Your task to perform on an android device: turn off translation in the chrome app Image 0: 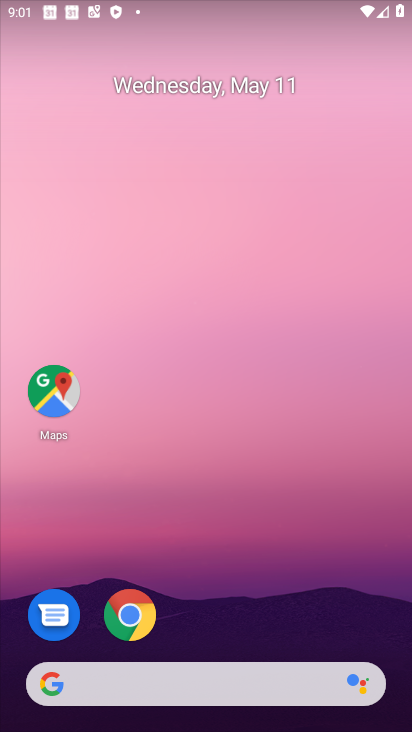
Step 0: press home button
Your task to perform on an android device: turn off translation in the chrome app Image 1: 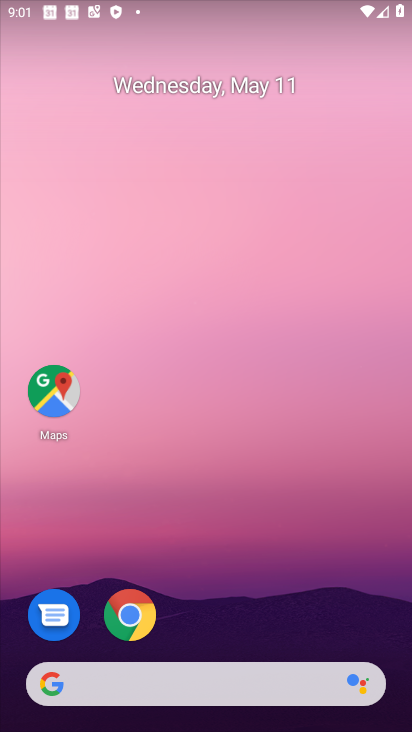
Step 1: click (126, 615)
Your task to perform on an android device: turn off translation in the chrome app Image 2: 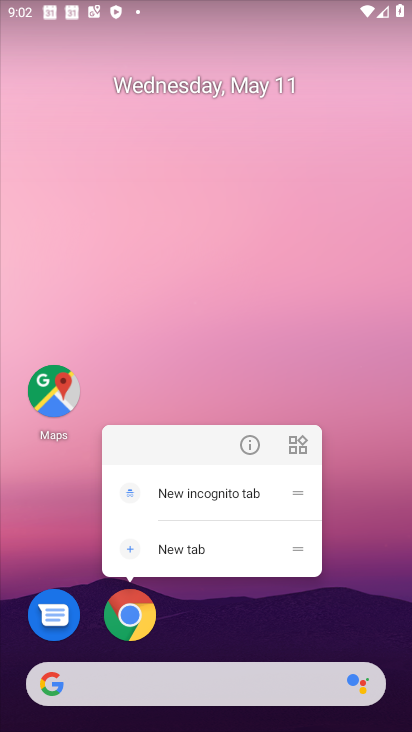
Step 2: click (126, 607)
Your task to perform on an android device: turn off translation in the chrome app Image 3: 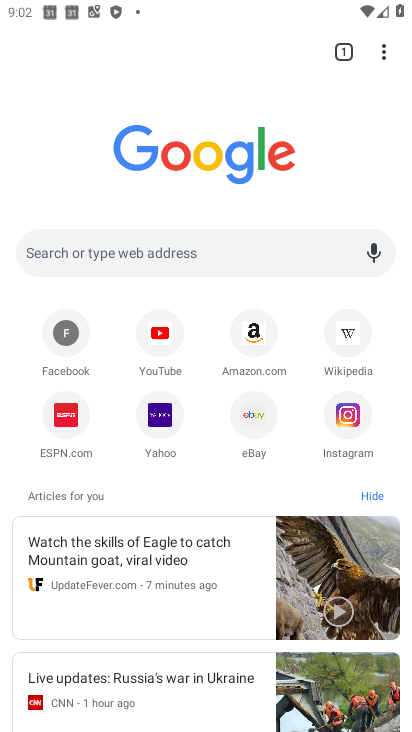
Step 3: click (373, 52)
Your task to perform on an android device: turn off translation in the chrome app Image 4: 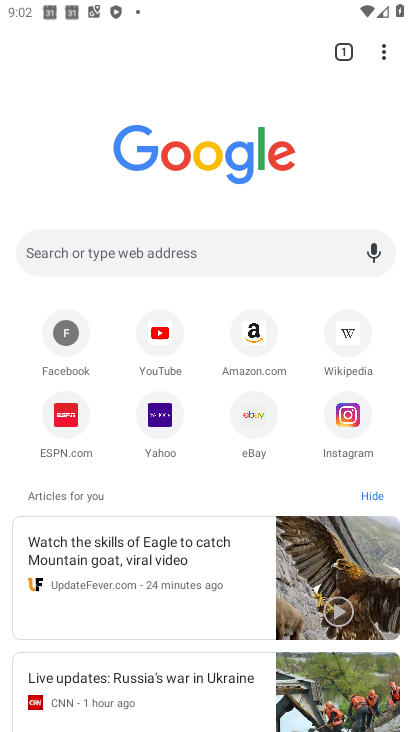
Step 4: click (382, 51)
Your task to perform on an android device: turn off translation in the chrome app Image 5: 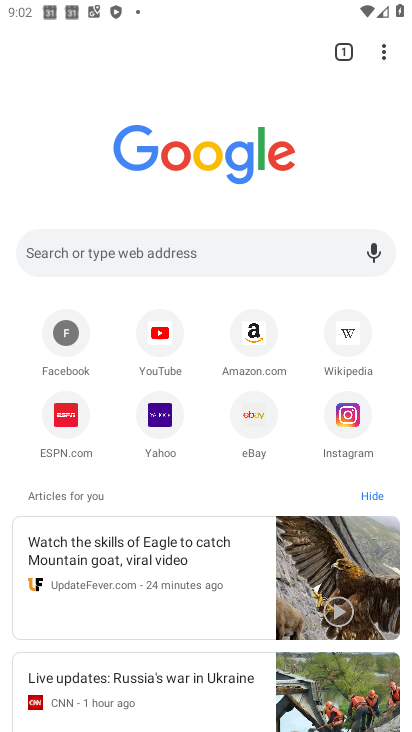
Step 5: click (381, 50)
Your task to perform on an android device: turn off translation in the chrome app Image 6: 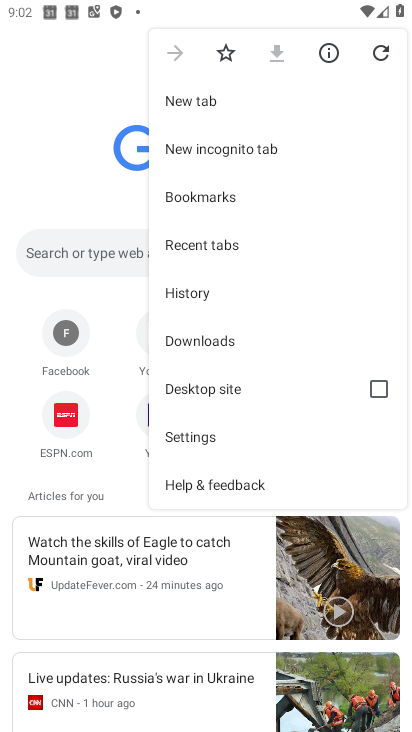
Step 6: click (173, 435)
Your task to perform on an android device: turn off translation in the chrome app Image 7: 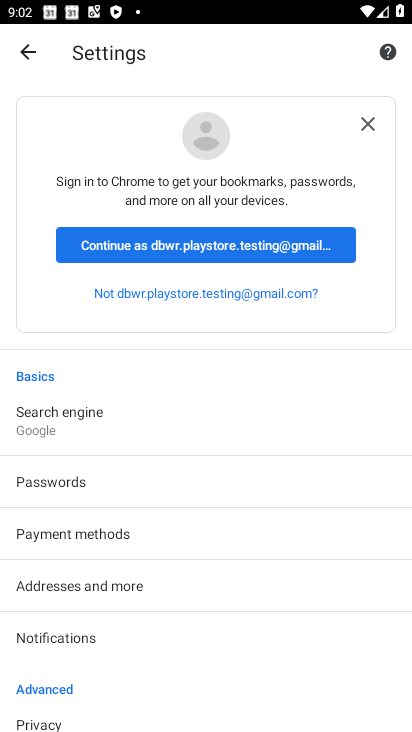
Step 7: drag from (140, 692) to (287, 159)
Your task to perform on an android device: turn off translation in the chrome app Image 8: 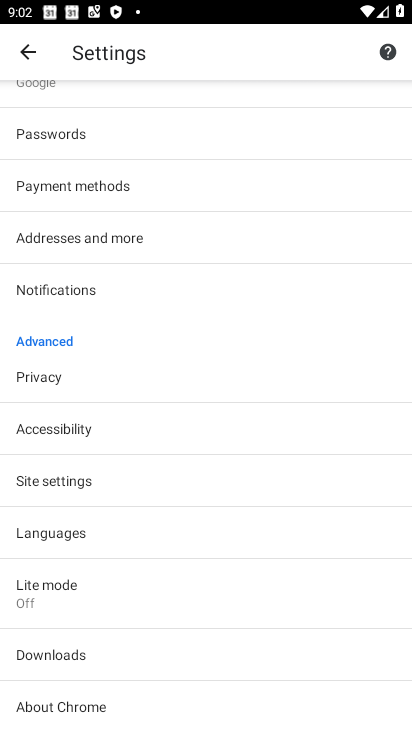
Step 8: click (75, 535)
Your task to perform on an android device: turn off translation in the chrome app Image 9: 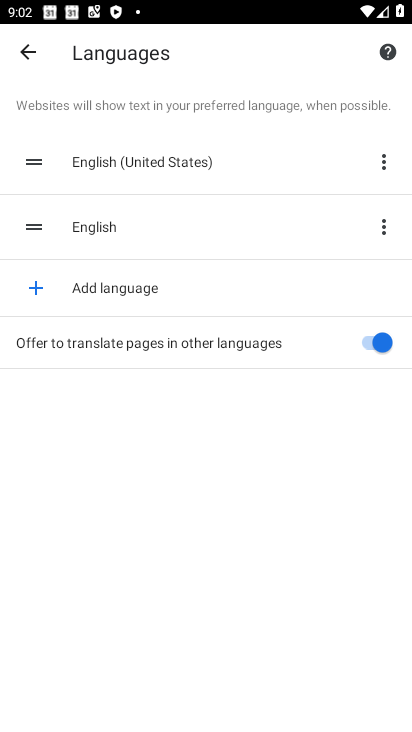
Step 9: click (379, 348)
Your task to perform on an android device: turn off translation in the chrome app Image 10: 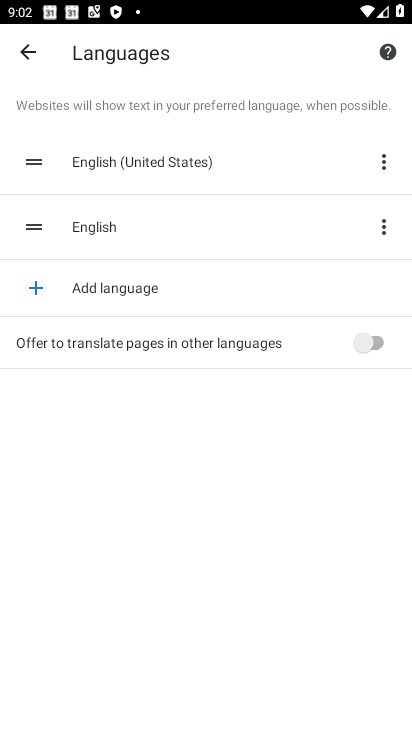
Step 10: task complete